Your task to perform on an android device: install app "Facebook Messenger" Image 0: 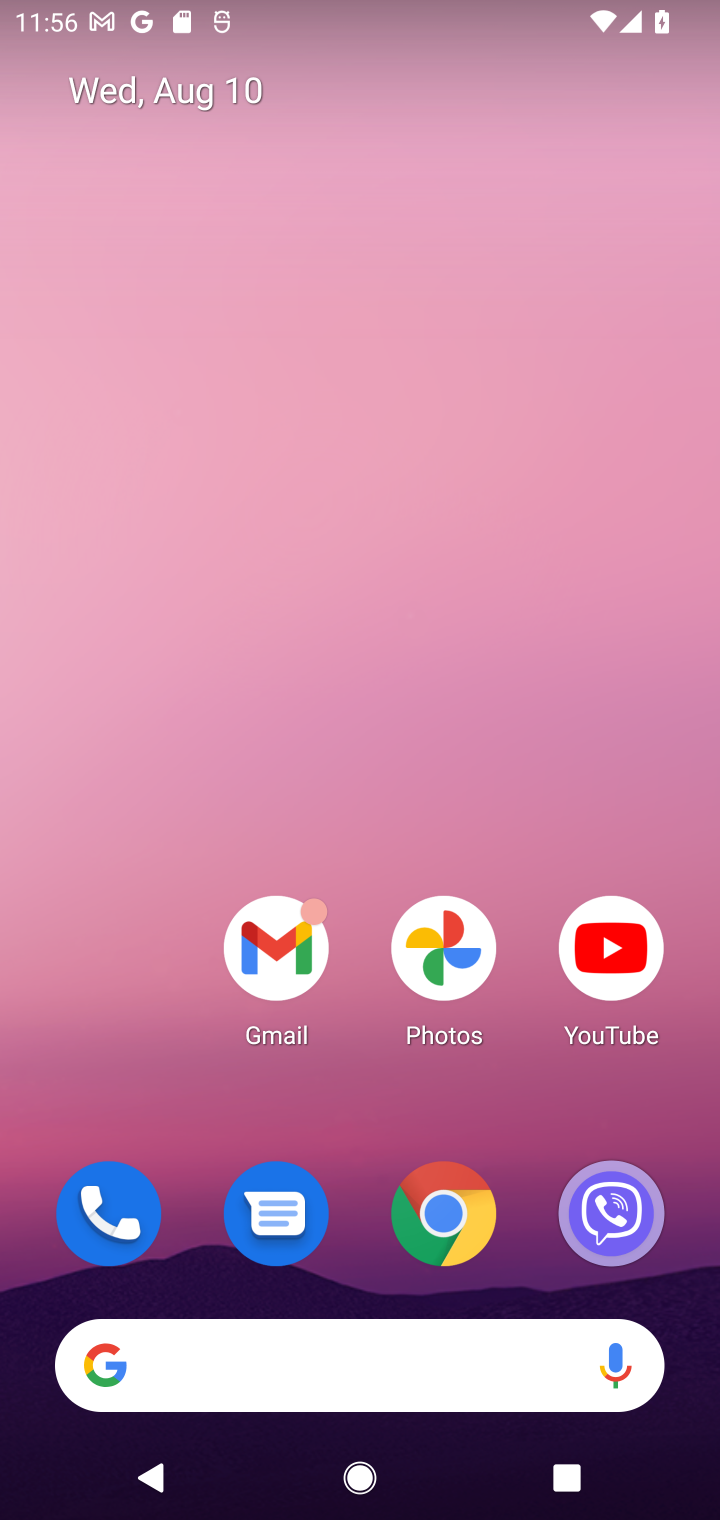
Step 0: drag from (324, 1392) to (352, 409)
Your task to perform on an android device: install app "Facebook Messenger" Image 1: 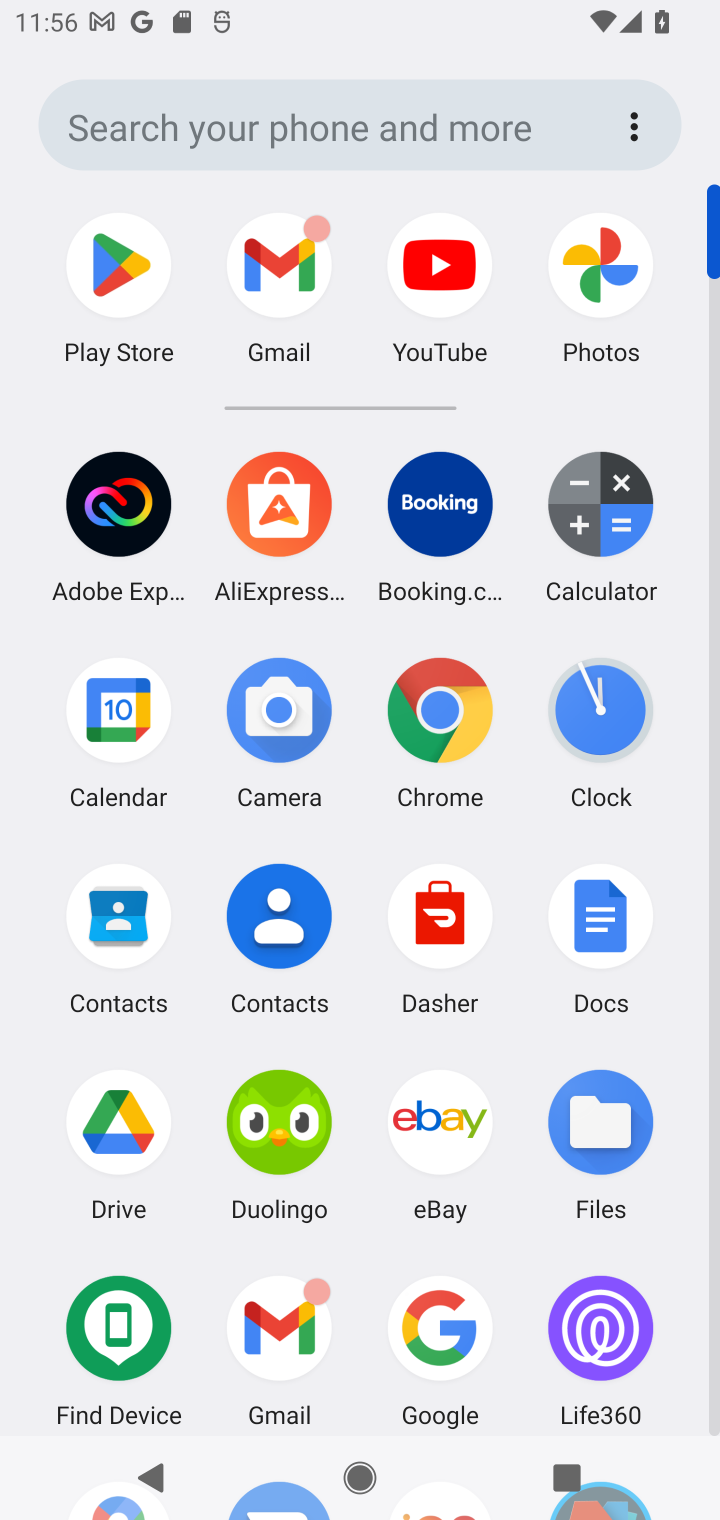
Step 1: click (120, 272)
Your task to perform on an android device: install app "Facebook Messenger" Image 2: 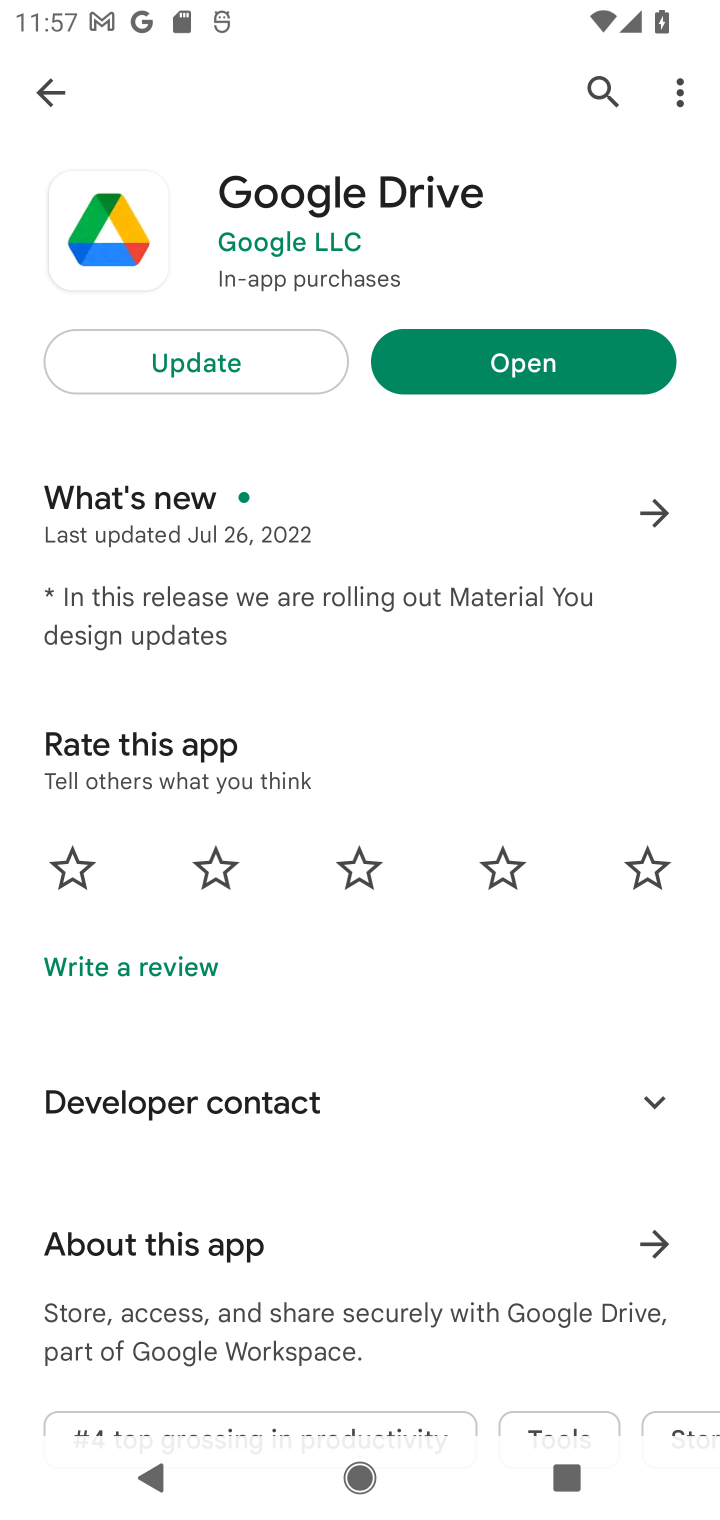
Step 2: press back button
Your task to perform on an android device: install app "Facebook Messenger" Image 3: 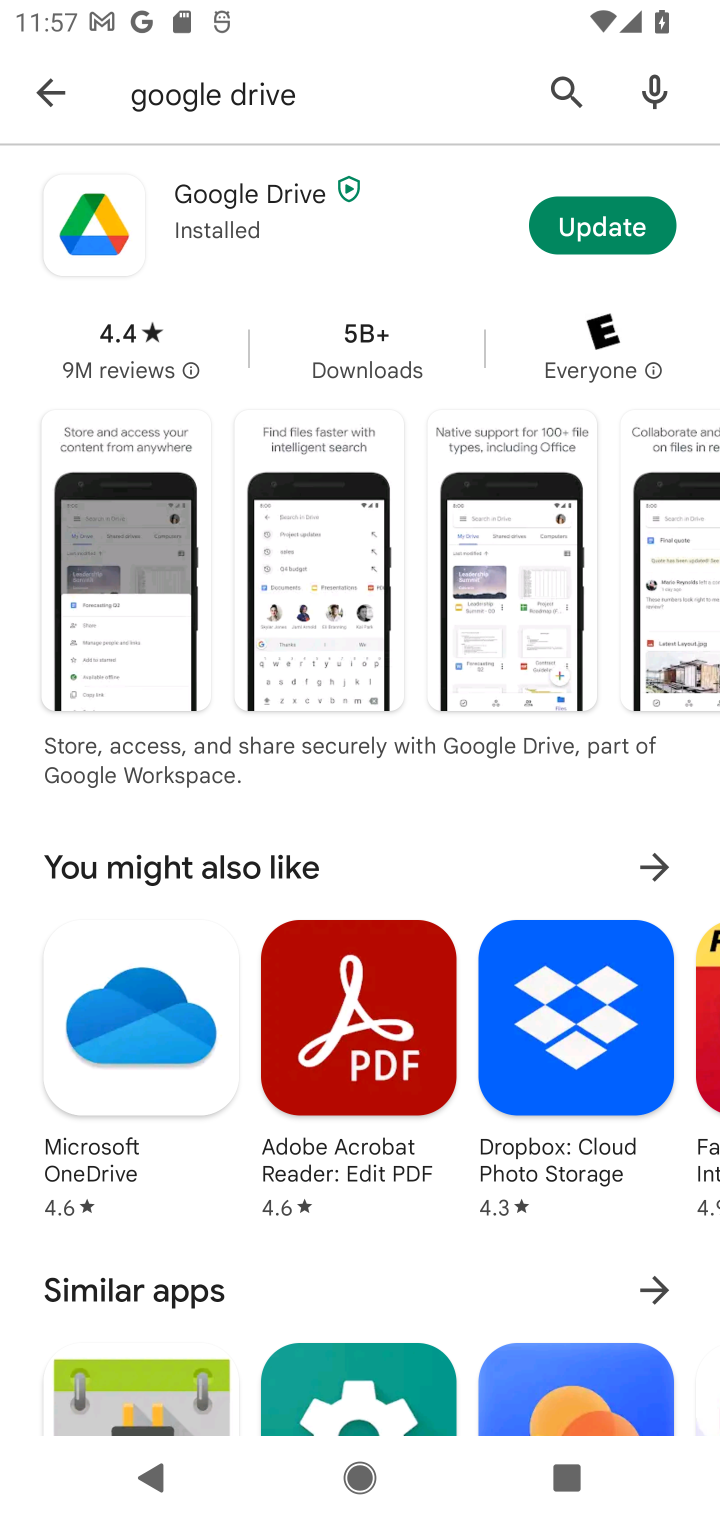
Step 3: press back button
Your task to perform on an android device: install app "Facebook Messenger" Image 4: 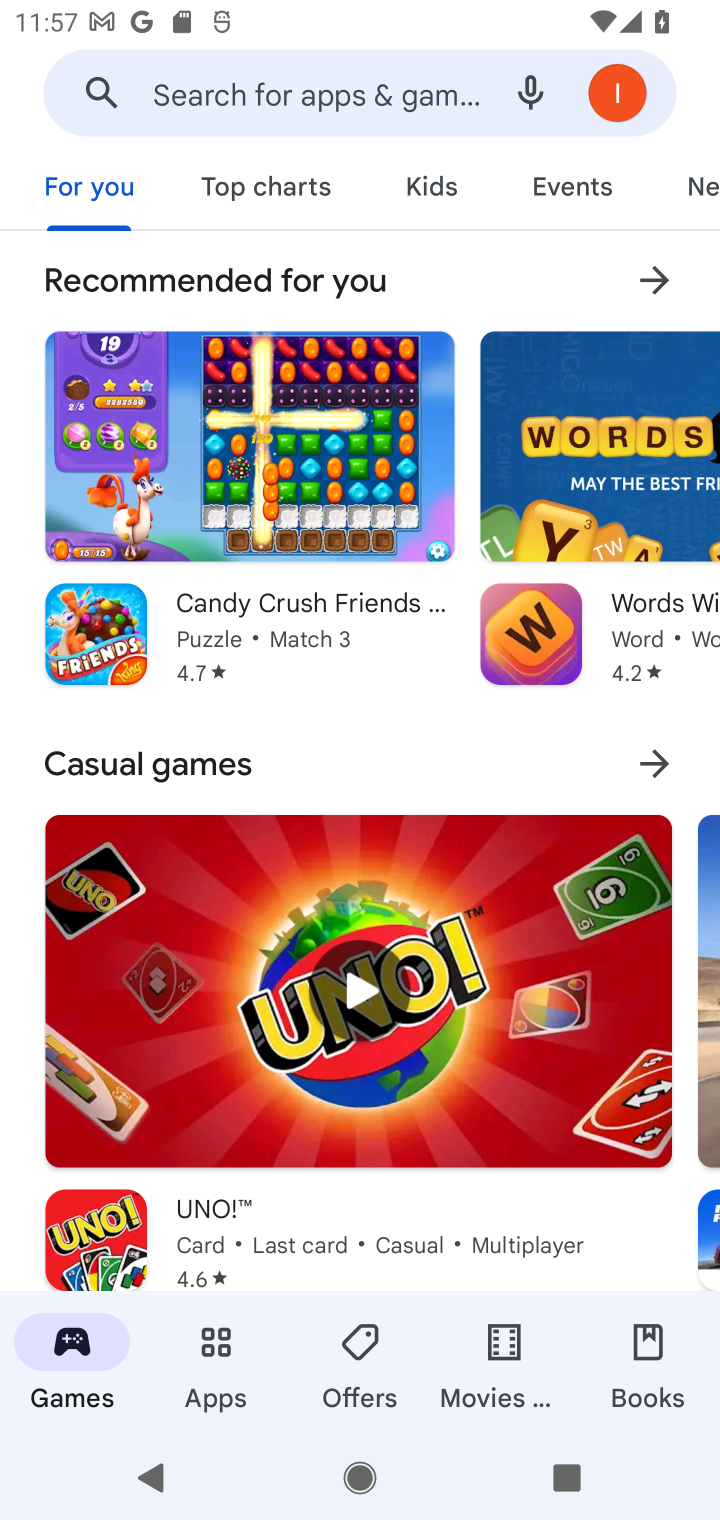
Step 4: click (412, 84)
Your task to perform on an android device: install app "Facebook Messenger" Image 5: 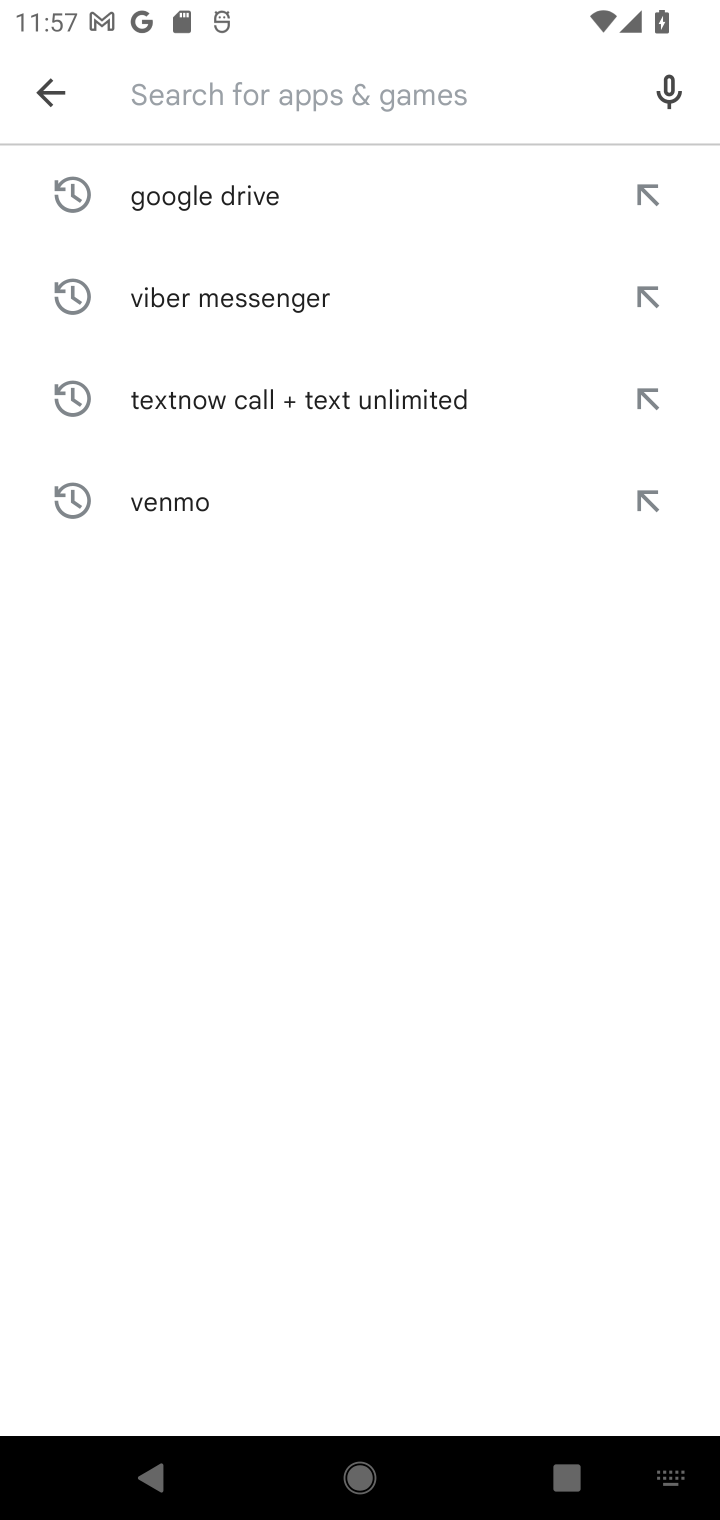
Step 5: type "Facebook Messenger"
Your task to perform on an android device: install app "Facebook Messenger" Image 6: 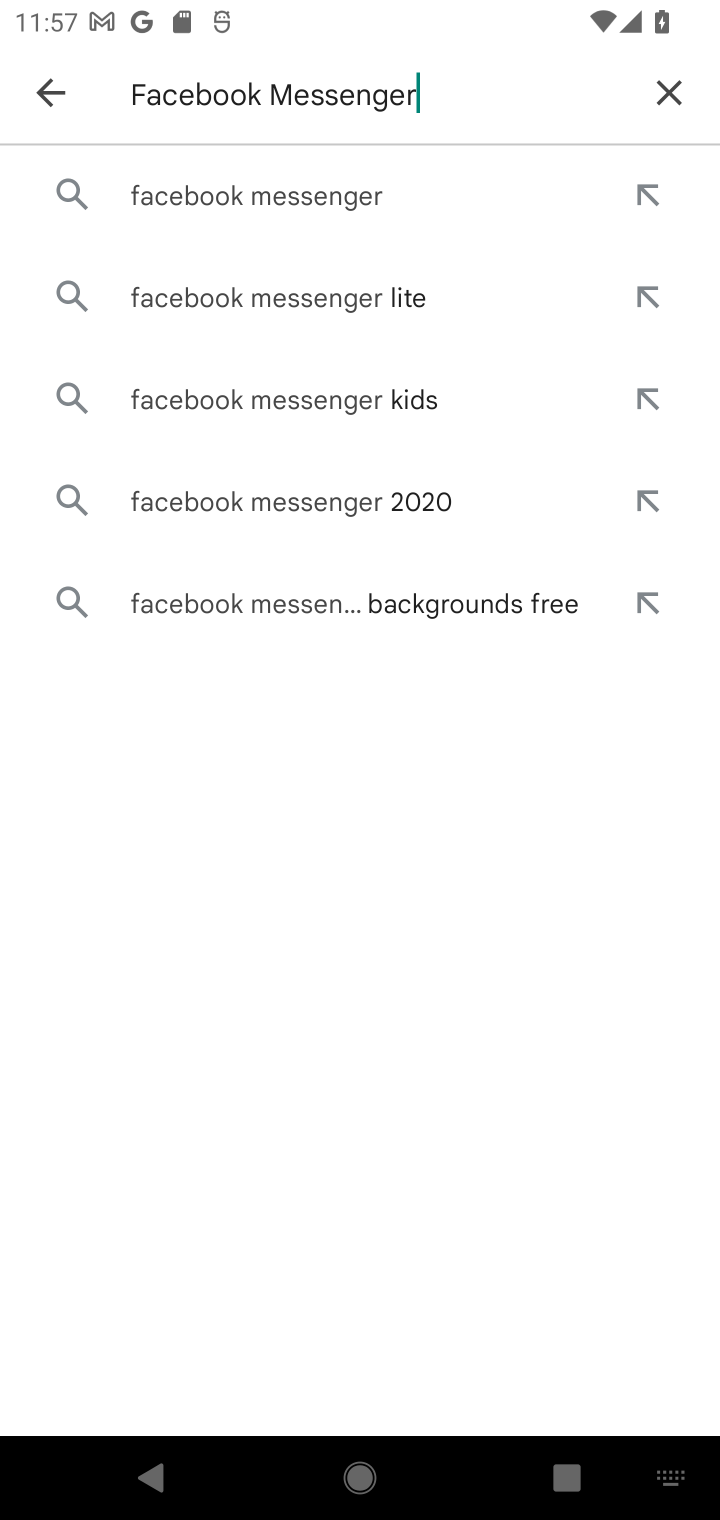
Step 6: click (316, 200)
Your task to perform on an android device: install app "Facebook Messenger" Image 7: 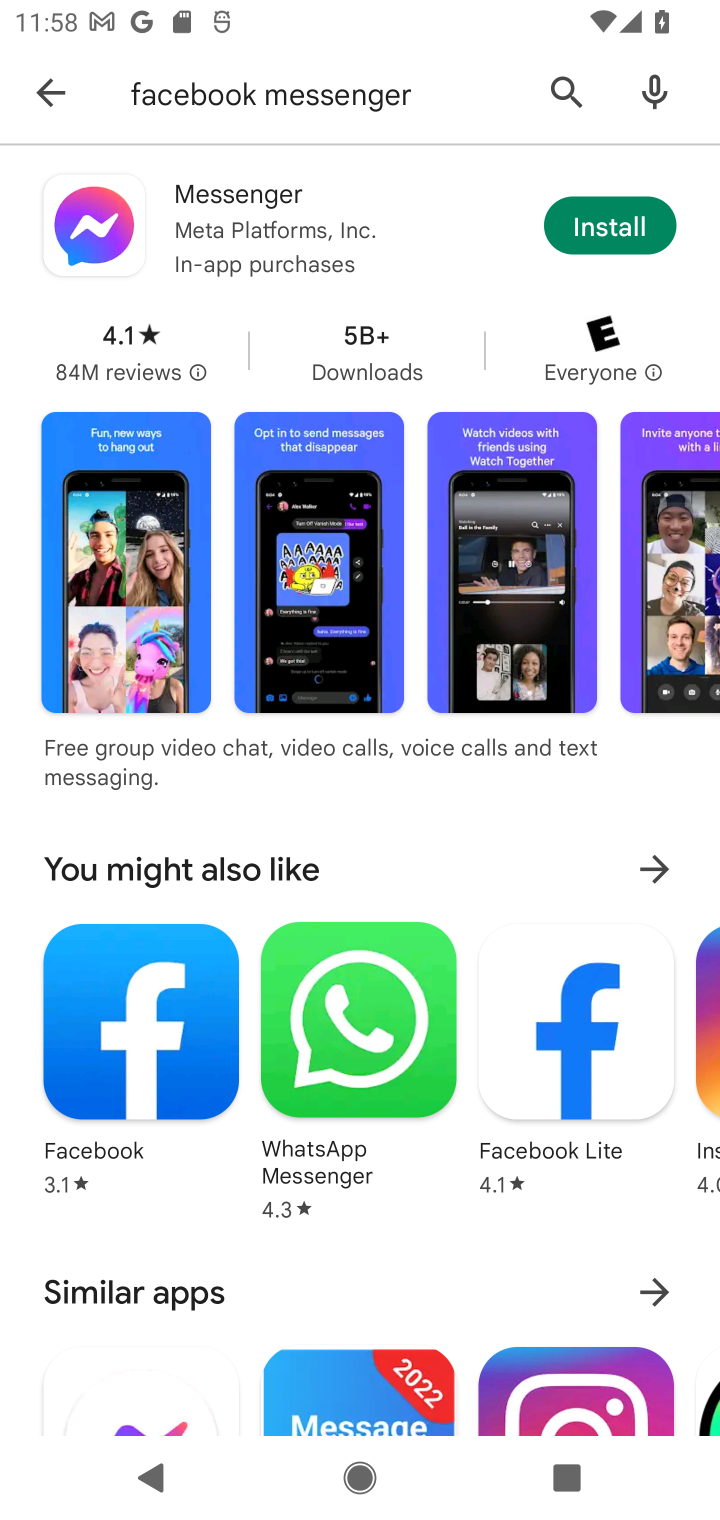
Step 7: click (622, 226)
Your task to perform on an android device: install app "Facebook Messenger" Image 8: 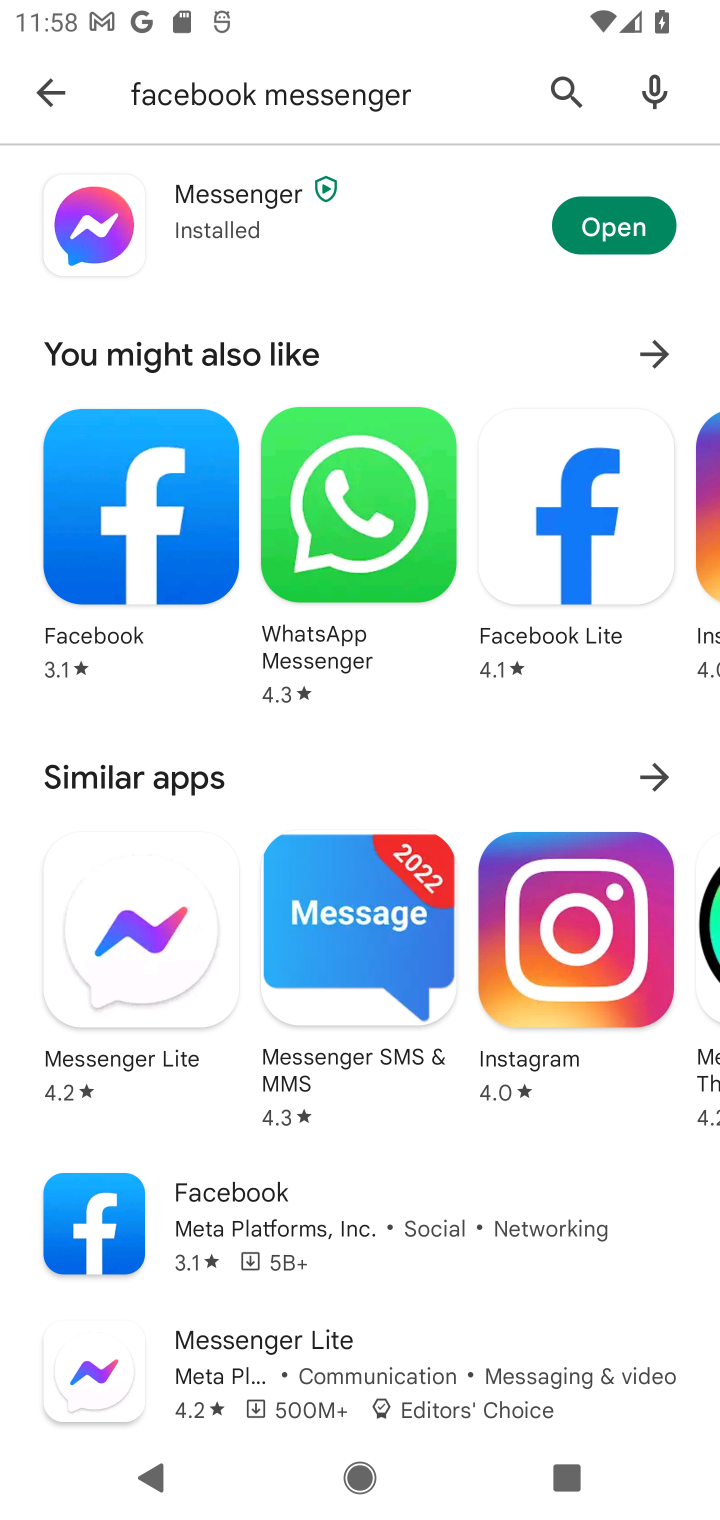
Step 8: task complete